Your task to perform on an android device: What's the weather today? Image 0: 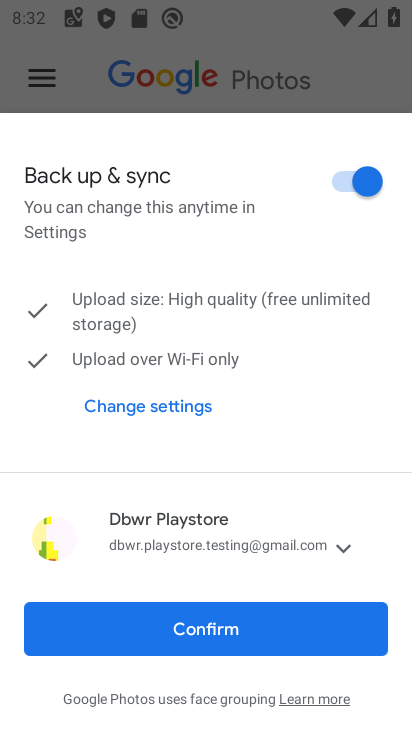
Step 0: press home button
Your task to perform on an android device: What's the weather today? Image 1: 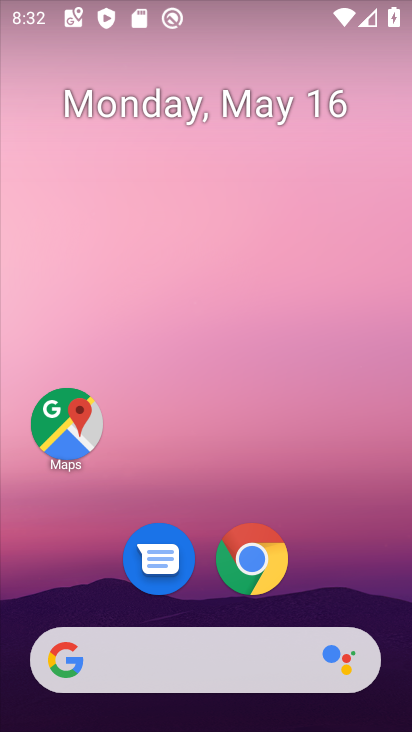
Step 1: drag from (350, 601) to (288, 6)
Your task to perform on an android device: What's the weather today? Image 2: 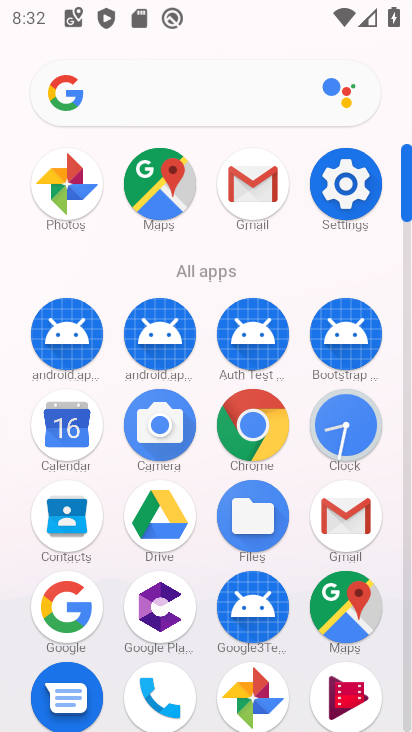
Step 2: click (231, 105)
Your task to perform on an android device: What's the weather today? Image 3: 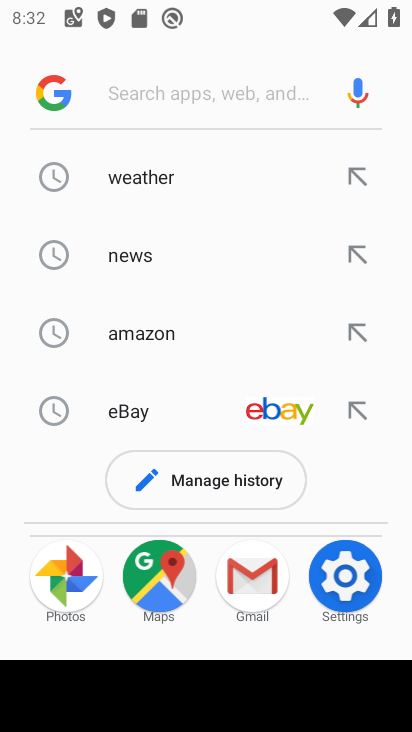
Step 3: type "what's the weather today"
Your task to perform on an android device: What's the weather today? Image 4: 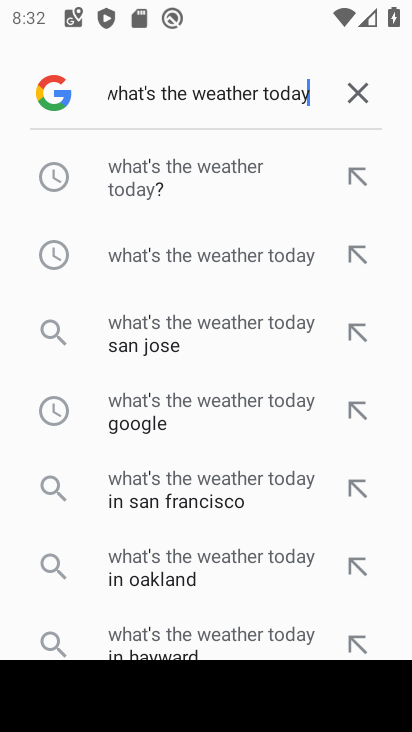
Step 4: click (176, 176)
Your task to perform on an android device: What's the weather today? Image 5: 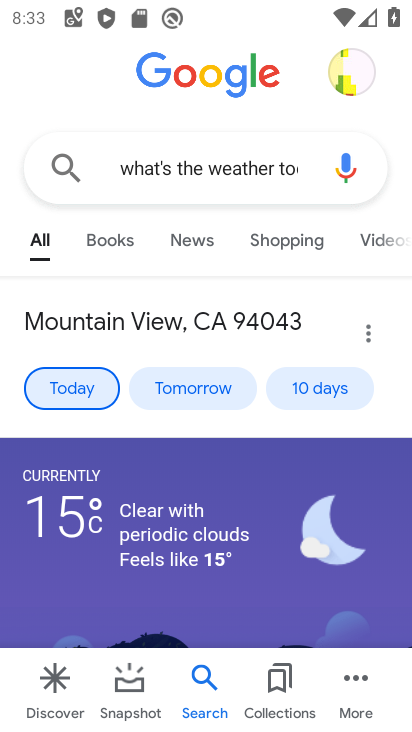
Step 5: task complete